Your task to perform on an android device: Search for usb-b on amazon, select the first entry, add it to the cart, then select checkout. Image 0: 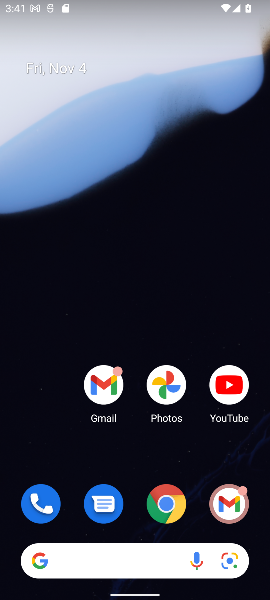
Step 0: click (169, 512)
Your task to perform on an android device: Search for usb-b on amazon, select the first entry, add it to the cart, then select checkout. Image 1: 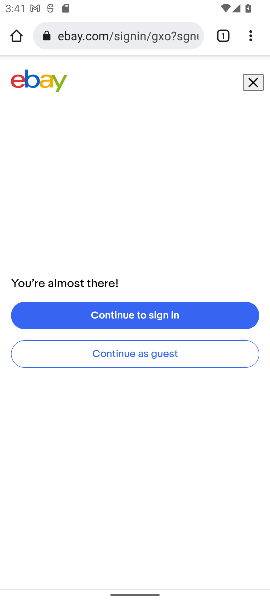
Step 1: click (122, 37)
Your task to perform on an android device: Search for usb-b on amazon, select the first entry, add it to the cart, then select checkout. Image 2: 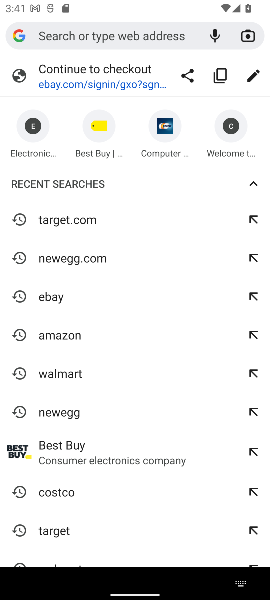
Step 2: click (56, 335)
Your task to perform on an android device: Search for usb-b on amazon, select the first entry, add it to the cart, then select checkout. Image 3: 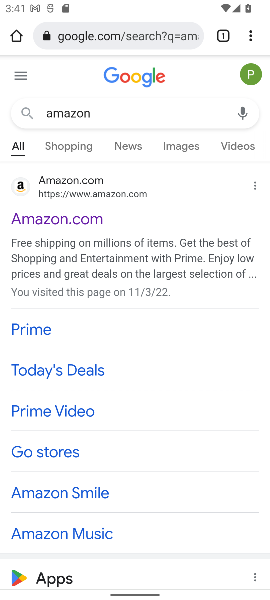
Step 3: click (62, 229)
Your task to perform on an android device: Search for usb-b on amazon, select the first entry, add it to the cart, then select checkout. Image 4: 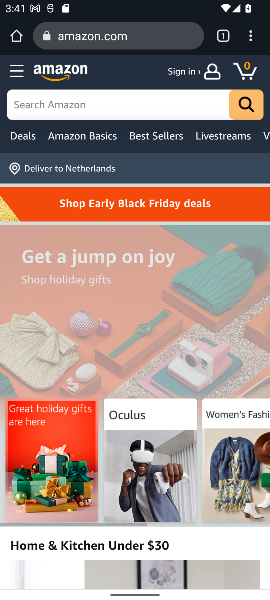
Step 4: click (90, 109)
Your task to perform on an android device: Search for usb-b on amazon, select the first entry, add it to the cart, then select checkout. Image 5: 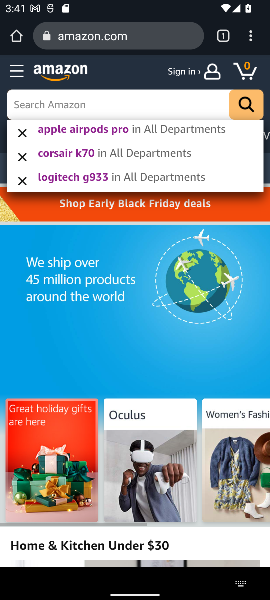
Step 5: type "usb-b"
Your task to perform on an android device: Search for usb-b on amazon, select the first entry, add it to the cart, then select checkout. Image 6: 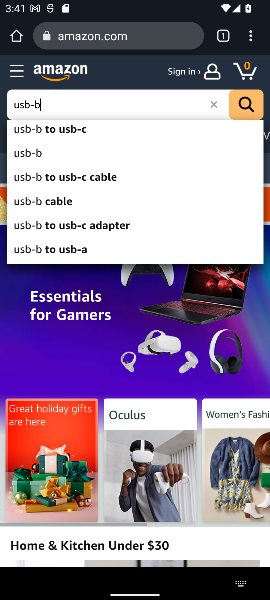
Step 6: click (22, 153)
Your task to perform on an android device: Search for usb-b on amazon, select the first entry, add it to the cart, then select checkout. Image 7: 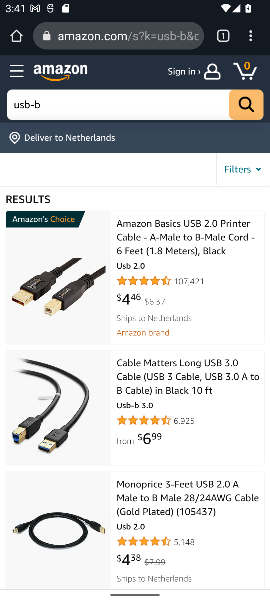
Step 7: click (82, 270)
Your task to perform on an android device: Search for usb-b on amazon, select the first entry, add it to the cart, then select checkout. Image 8: 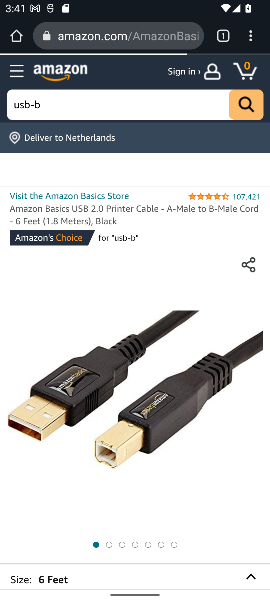
Step 8: drag from (96, 432) to (108, 176)
Your task to perform on an android device: Search for usb-b on amazon, select the first entry, add it to the cart, then select checkout. Image 9: 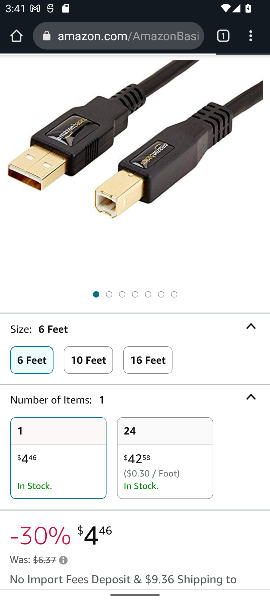
Step 9: drag from (113, 506) to (136, 239)
Your task to perform on an android device: Search for usb-b on amazon, select the first entry, add it to the cart, then select checkout. Image 10: 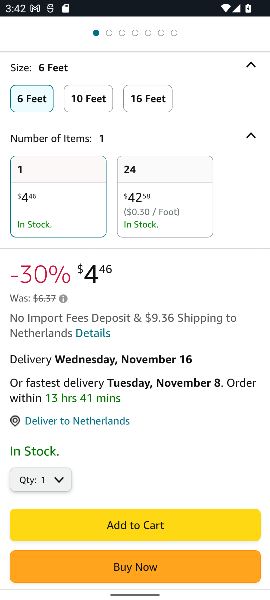
Step 10: click (130, 518)
Your task to perform on an android device: Search for usb-b on amazon, select the first entry, add it to the cart, then select checkout. Image 11: 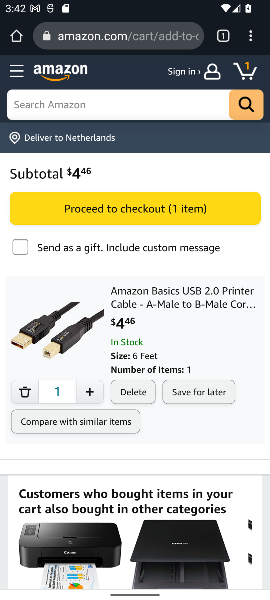
Step 11: click (123, 217)
Your task to perform on an android device: Search for usb-b on amazon, select the first entry, add it to the cart, then select checkout. Image 12: 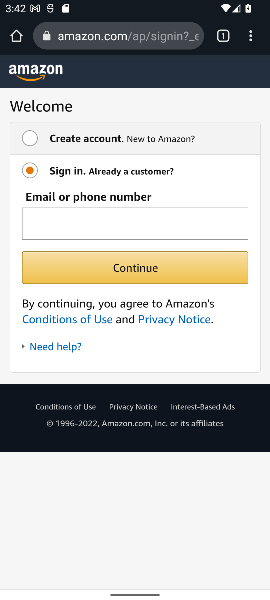
Step 12: task complete